Your task to perform on an android device: Open settings on Google Maps Image 0: 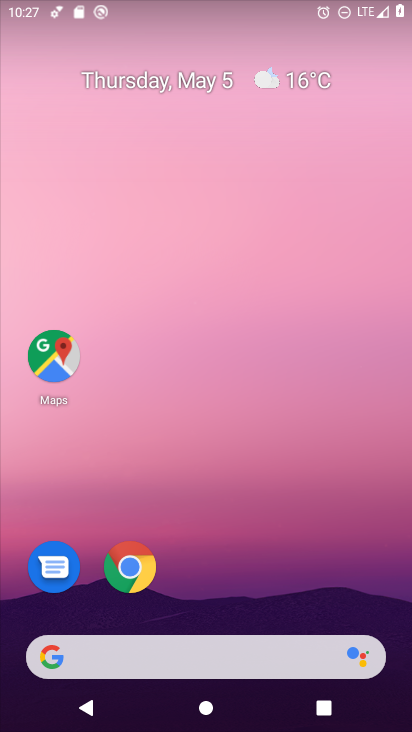
Step 0: drag from (330, 565) to (297, 10)
Your task to perform on an android device: Open settings on Google Maps Image 1: 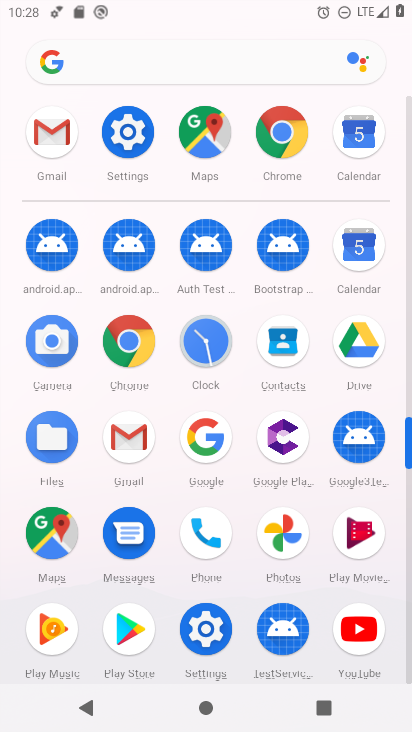
Step 1: click (51, 525)
Your task to perform on an android device: Open settings on Google Maps Image 2: 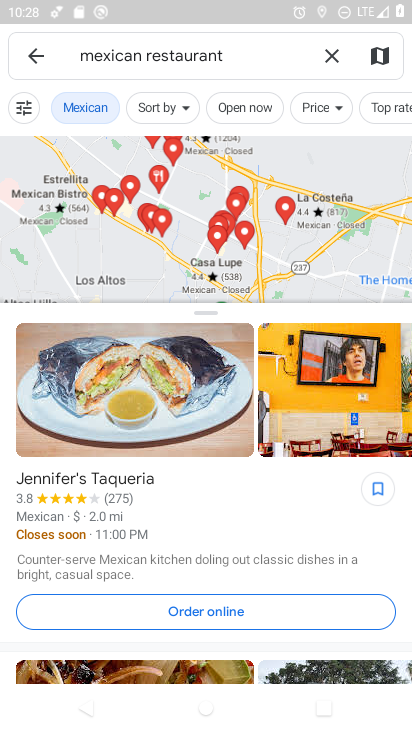
Step 2: click (331, 50)
Your task to perform on an android device: Open settings on Google Maps Image 3: 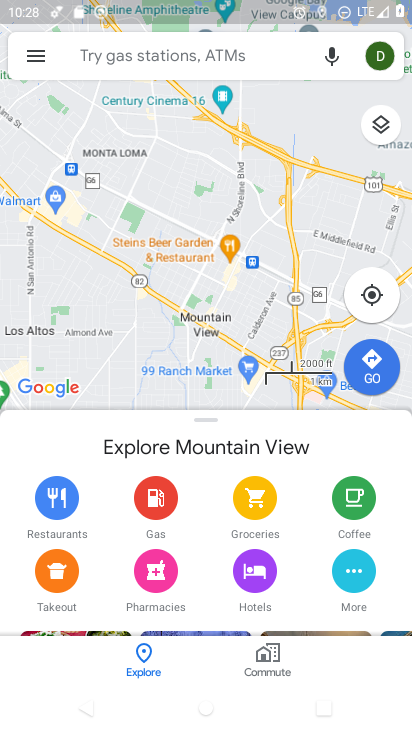
Step 3: click (31, 46)
Your task to perform on an android device: Open settings on Google Maps Image 4: 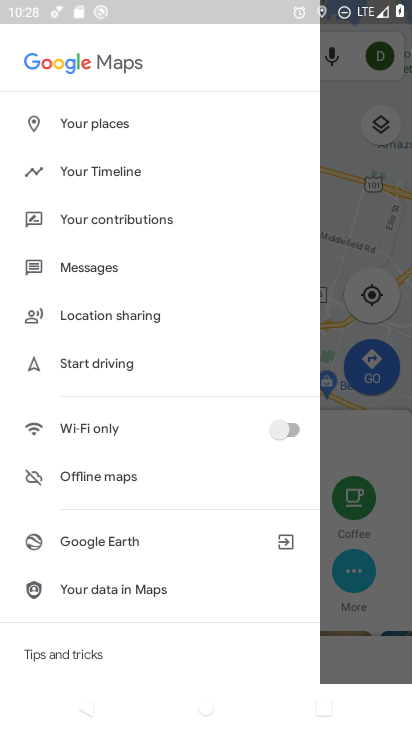
Step 4: drag from (157, 479) to (210, 123)
Your task to perform on an android device: Open settings on Google Maps Image 5: 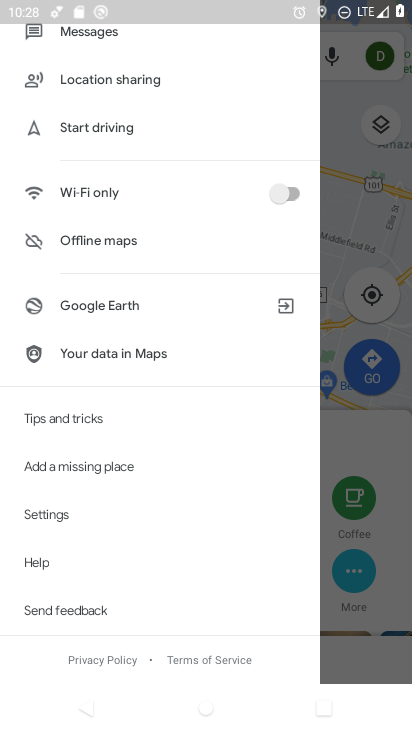
Step 5: click (52, 505)
Your task to perform on an android device: Open settings on Google Maps Image 6: 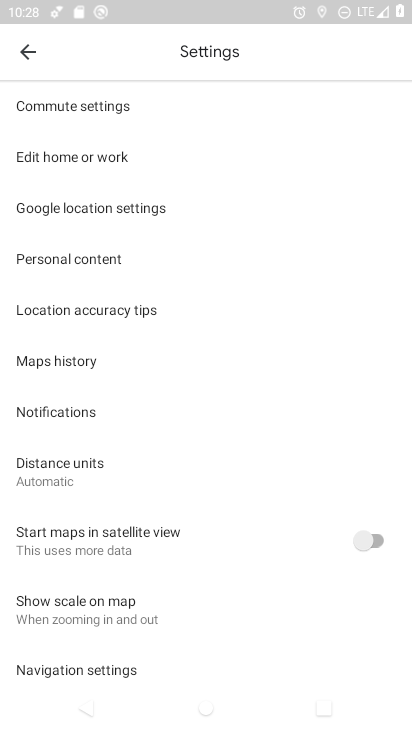
Step 6: task complete